Your task to perform on an android device: turn off javascript in the chrome app Image 0: 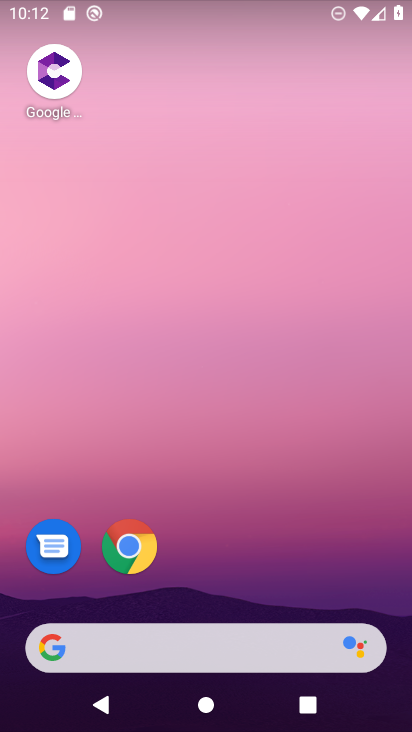
Step 0: click (124, 544)
Your task to perform on an android device: turn off javascript in the chrome app Image 1: 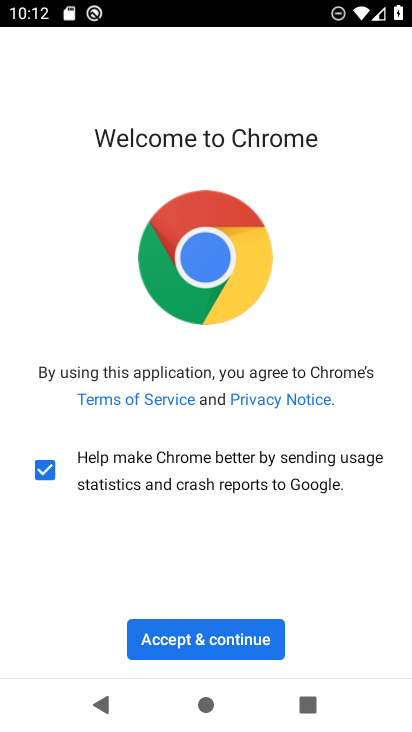
Step 1: click (203, 638)
Your task to perform on an android device: turn off javascript in the chrome app Image 2: 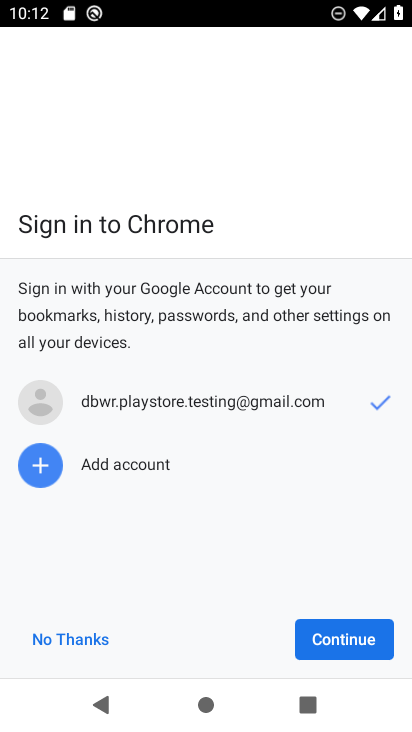
Step 2: click (331, 633)
Your task to perform on an android device: turn off javascript in the chrome app Image 3: 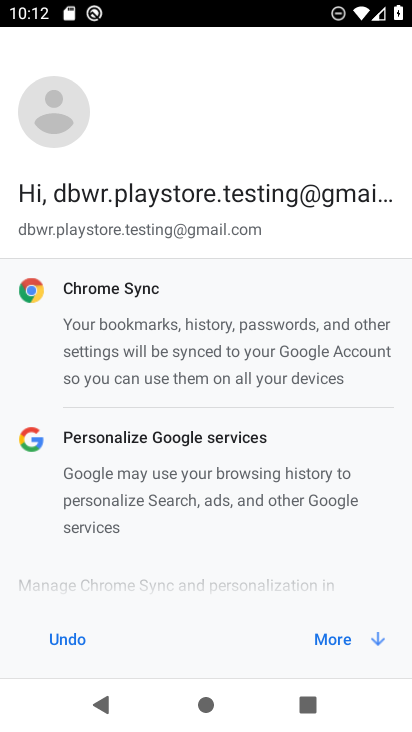
Step 3: click (331, 633)
Your task to perform on an android device: turn off javascript in the chrome app Image 4: 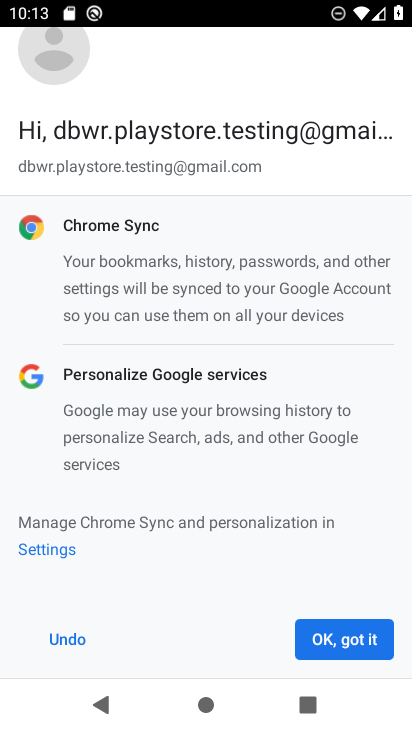
Step 4: click (331, 633)
Your task to perform on an android device: turn off javascript in the chrome app Image 5: 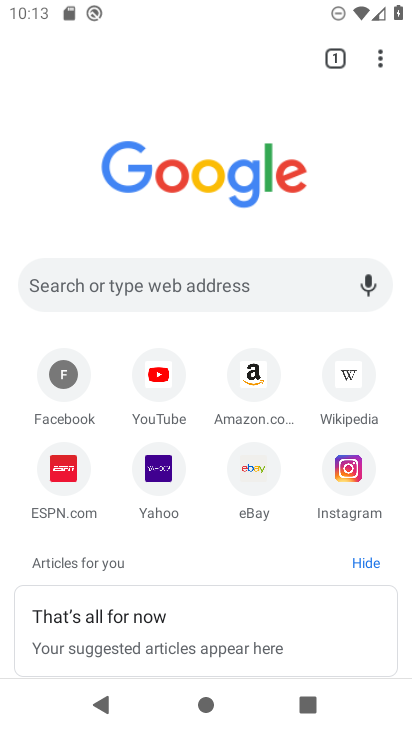
Step 5: drag from (376, 56) to (201, 491)
Your task to perform on an android device: turn off javascript in the chrome app Image 6: 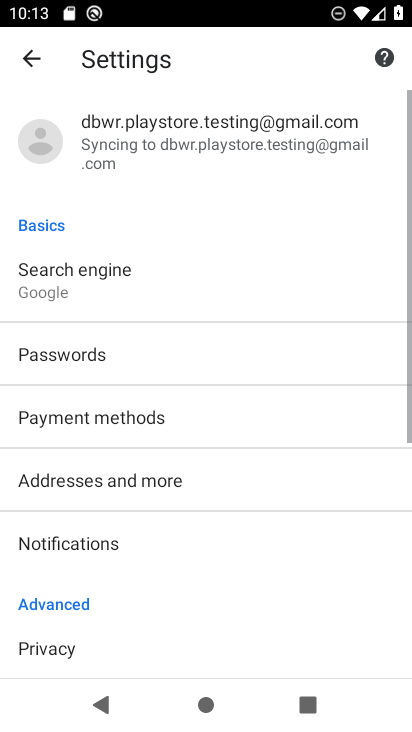
Step 6: drag from (277, 580) to (279, 80)
Your task to perform on an android device: turn off javascript in the chrome app Image 7: 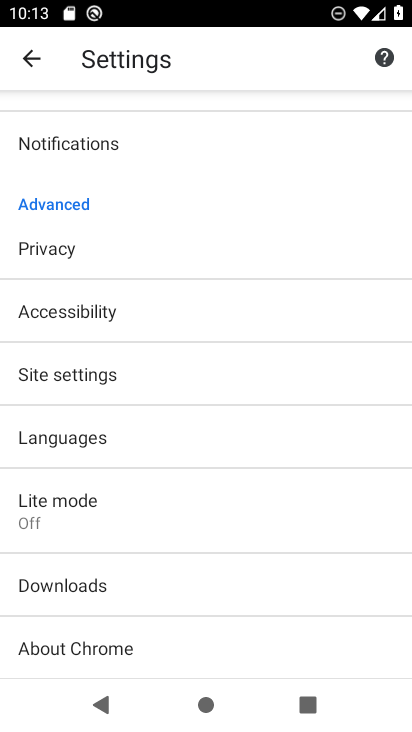
Step 7: click (89, 371)
Your task to perform on an android device: turn off javascript in the chrome app Image 8: 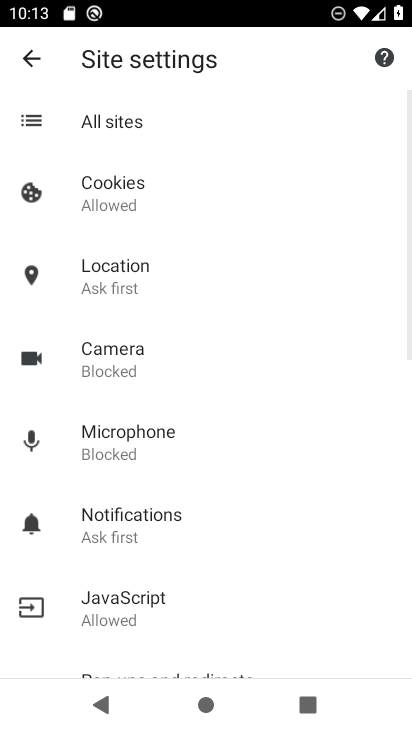
Step 8: drag from (353, 614) to (307, 199)
Your task to perform on an android device: turn off javascript in the chrome app Image 9: 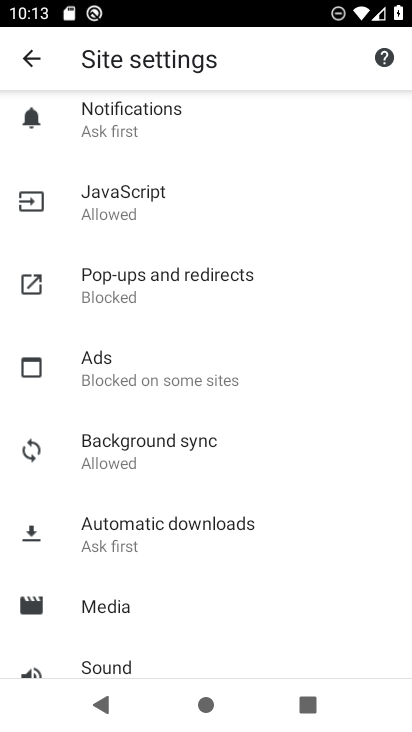
Step 9: click (120, 203)
Your task to perform on an android device: turn off javascript in the chrome app Image 10: 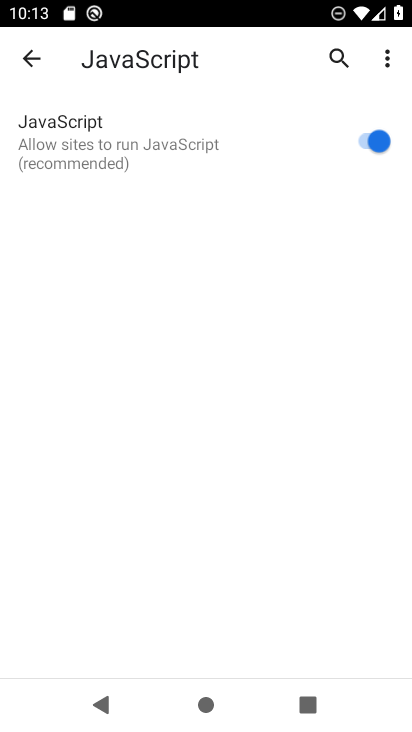
Step 10: click (384, 143)
Your task to perform on an android device: turn off javascript in the chrome app Image 11: 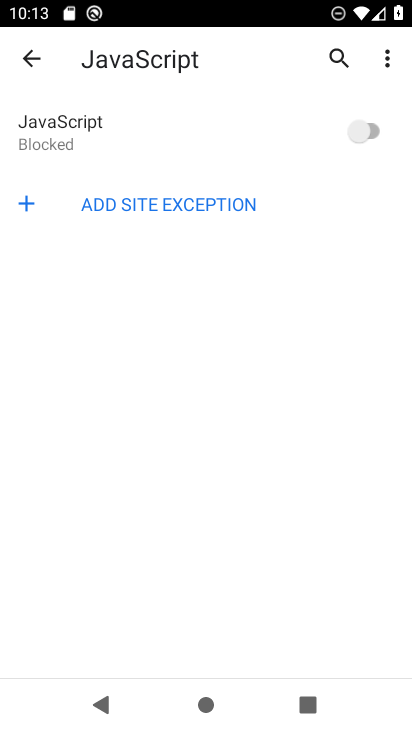
Step 11: task complete